Your task to perform on an android device: Open the calendar and show me this week's events Image 0: 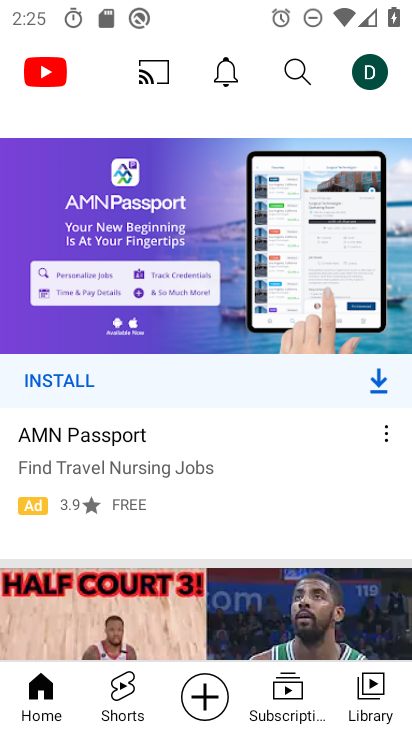
Step 0: press home button
Your task to perform on an android device: Open the calendar and show me this week's events Image 1: 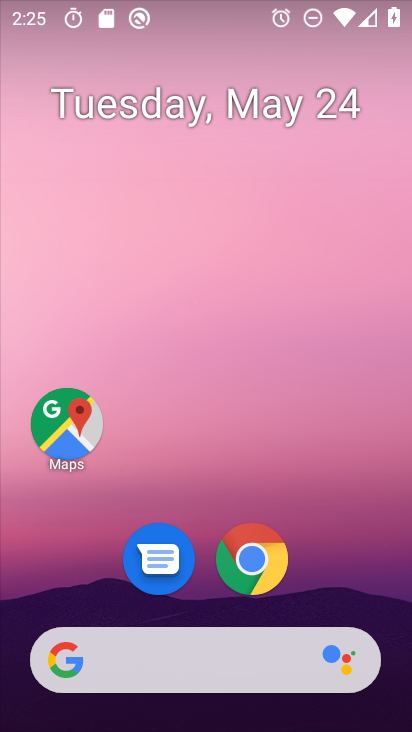
Step 1: drag from (384, 551) to (389, 212)
Your task to perform on an android device: Open the calendar and show me this week's events Image 2: 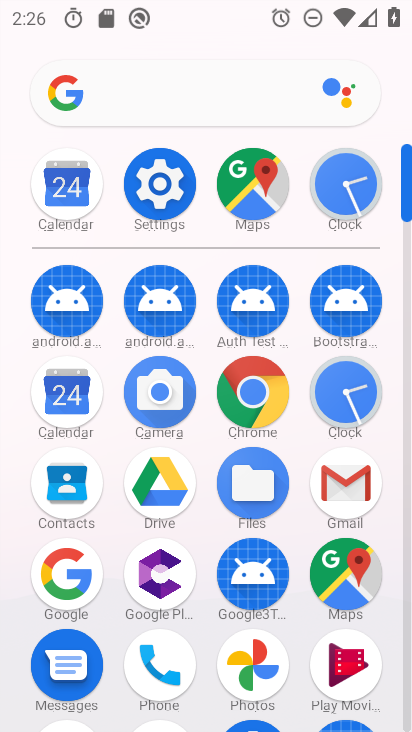
Step 2: click (64, 395)
Your task to perform on an android device: Open the calendar and show me this week's events Image 3: 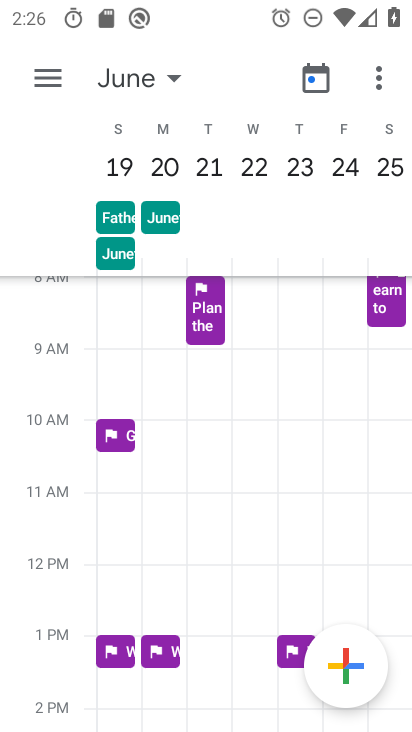
Step 3: click (170, 77)
Your task to perform on an android device: Open the calendar and show me this week's events Image 4: 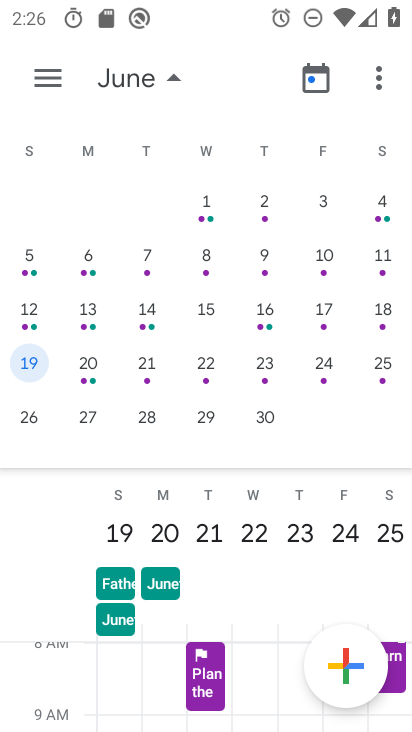
Step 4: drag from (28, 199) to (242, 206)
Your task to perform on an android device: Open the calendar and show me this week's events Image 5: 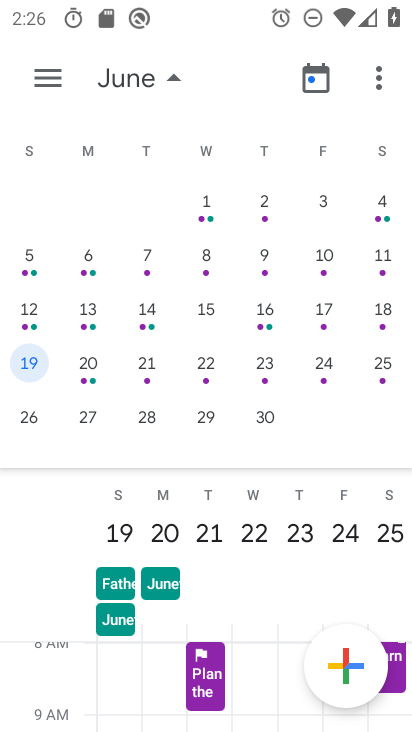
Step 5: drag from (55, 201) to (208, 232)
Your task to perform on an android device: Open the calendar and show me this week's events Image 6: 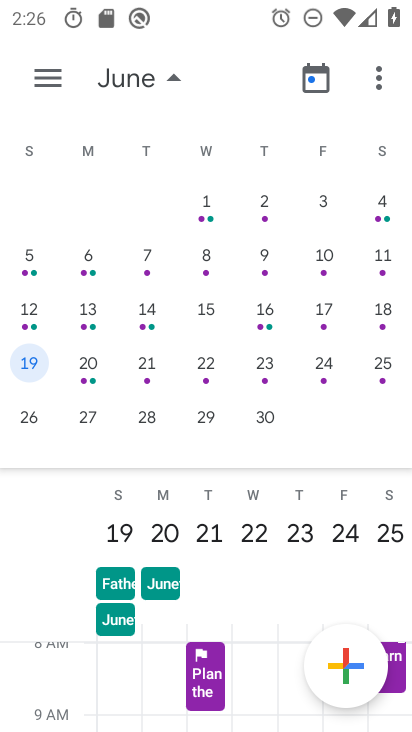
Step 6: drag from (66, 210) to (407, 144)
Your task to perform on an android device: Open the calendar and show me this week's events Image 7: 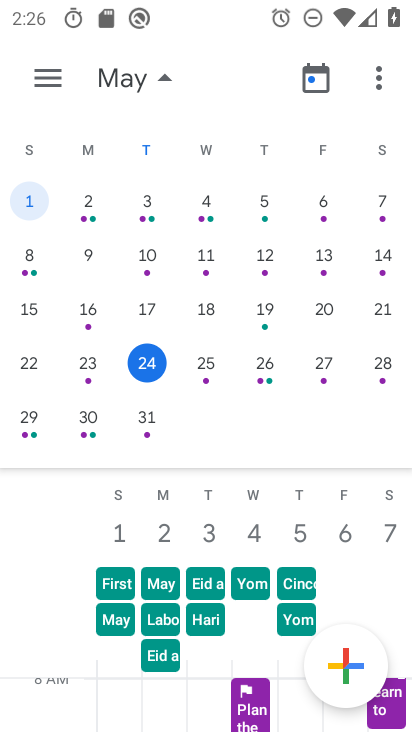
Step 7: click (47, 74)
Your task to perform on an android device: Open the calendar and show me this week's events Image 8: 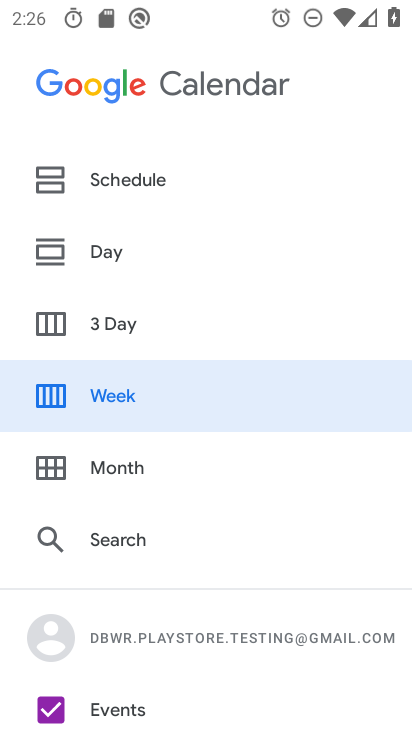
Step 8: click (98, 394)
Your task to perform on an android device: Open the calendar and show me this week's events Image 9: 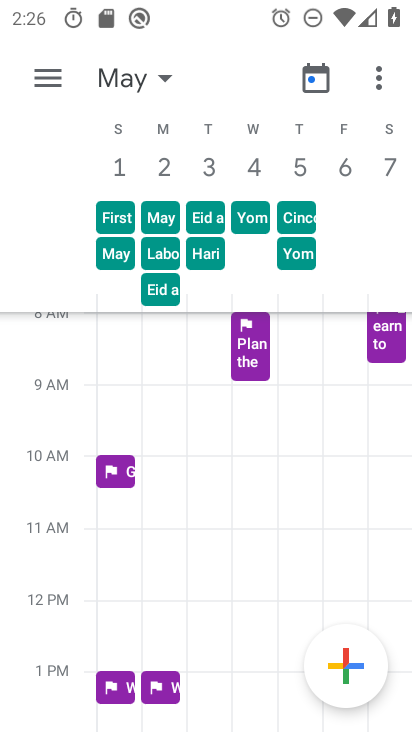
Step 9: click (161, 85)
Your task to perform on an android device: Open the calendar and show me this week's events Image 10: 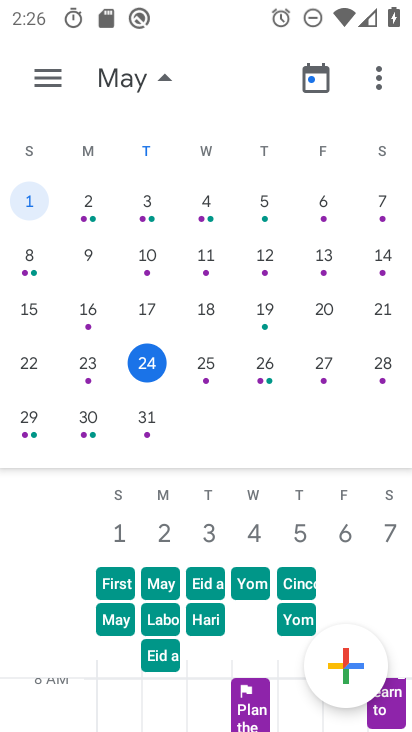
Step 10: click (155, 360)
Your task to perform on an android device: Open the calendar and show me this week's events Image 11: 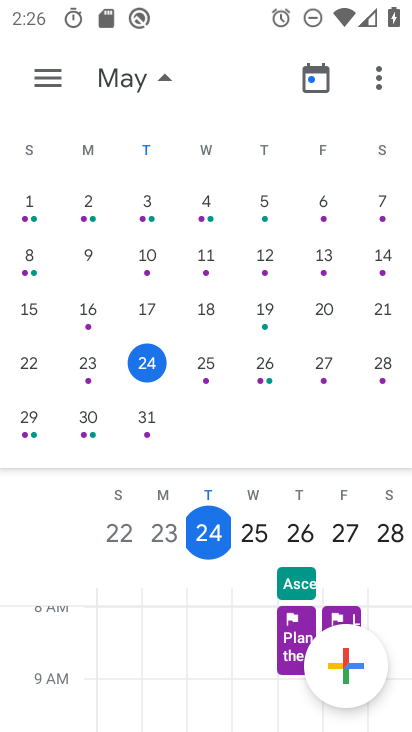
Step 11: click (51, 76)
Your task to perform on an android device: Open the calendar and show me this week's events Image 12: 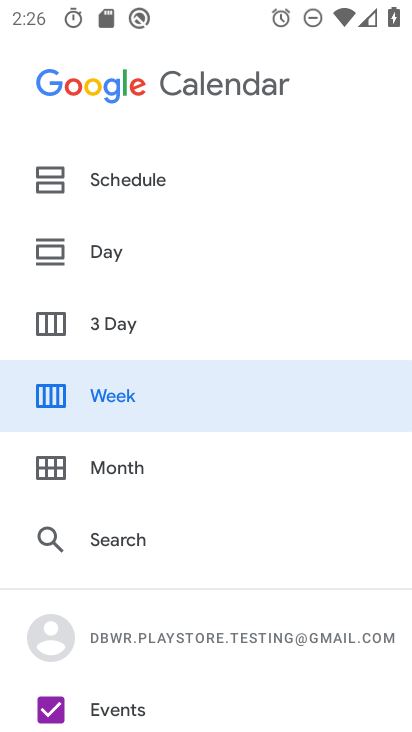
Step 12: click (86, 394)
Your task to perform on an android device: Open the calendar and show me this week's events Image 13: 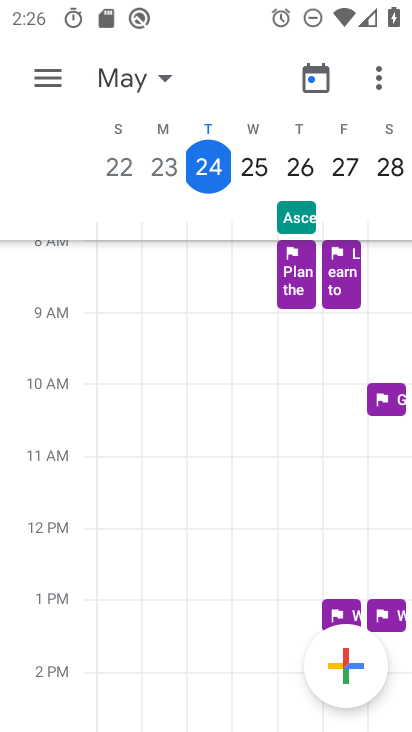
Step 13: task complete